Your task to perform on an android device: Go to Android settings Image 0: 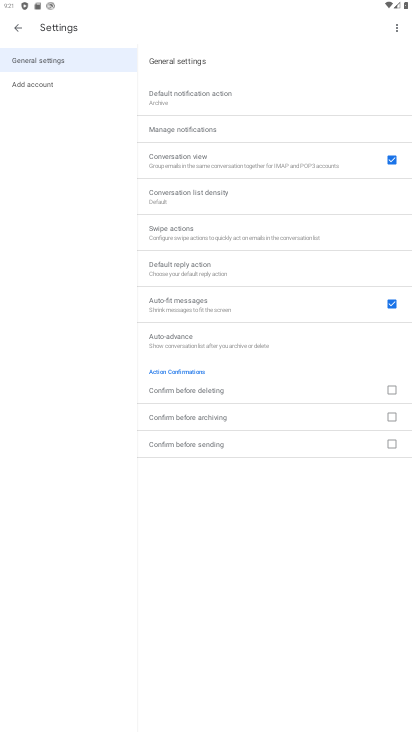
Step 0: press home button
Your task to perform on an android device: Go to Android settings Image 1: 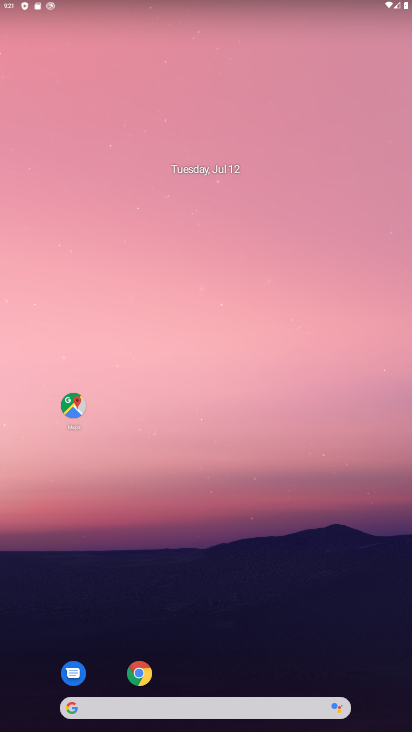
Step 1: drag from (364, 709) to (326, 118)
Your task to perform on an android device: Go to Android settings Image 2: 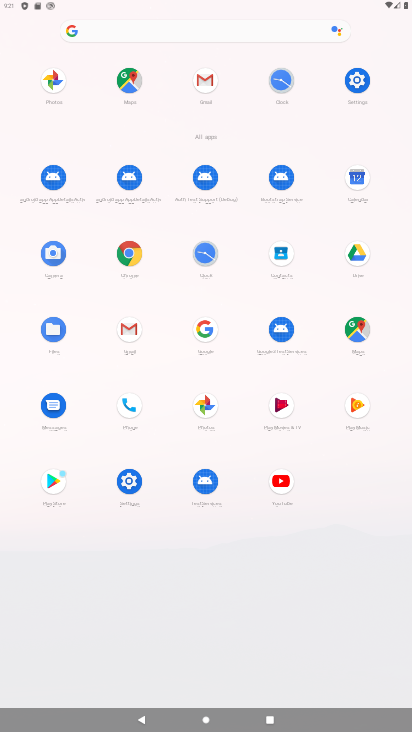
Step 2: click (365, 75)
Your task to perform on an android device: Go to Android settings Image 3: 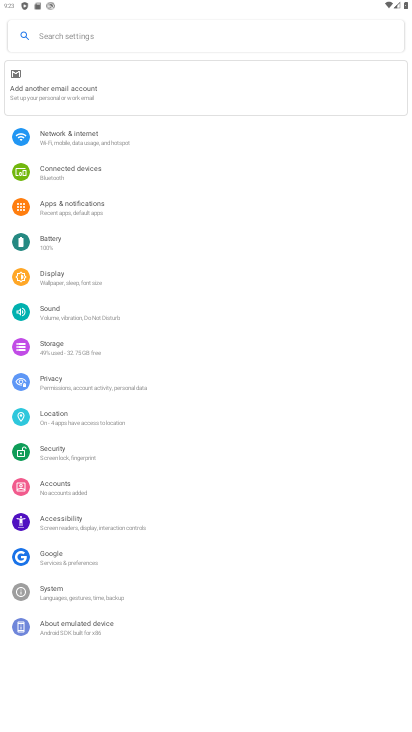
Step 3: task complete